Your task to perform on an android device: open app "The Home Depot" (install if not already installed) Image 0: 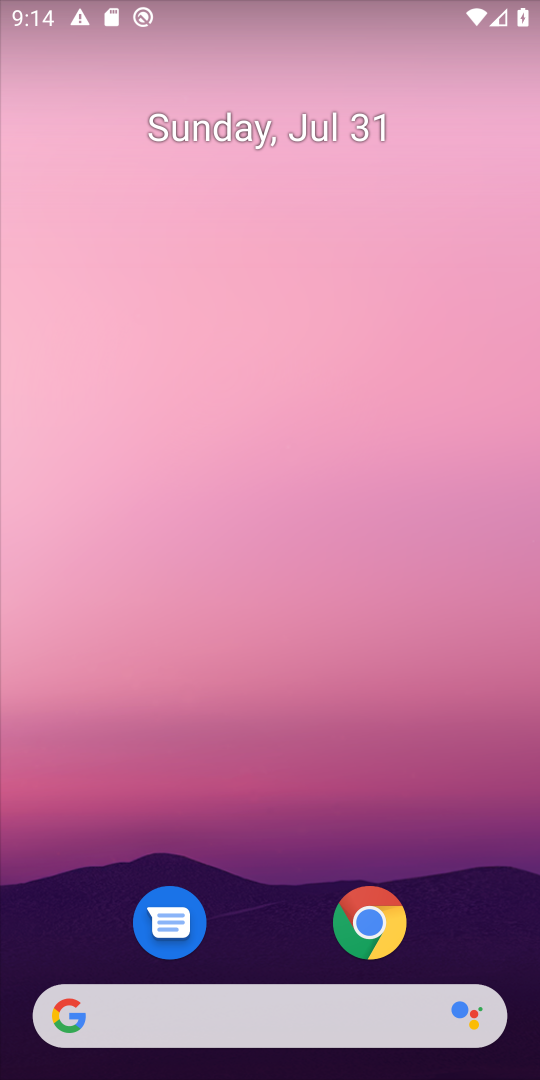
Step 0: drag from (290, 994) to (297, 117)
Your task to perform on an android device: open app "The Home Depot" (install if not already installed) Image 1: 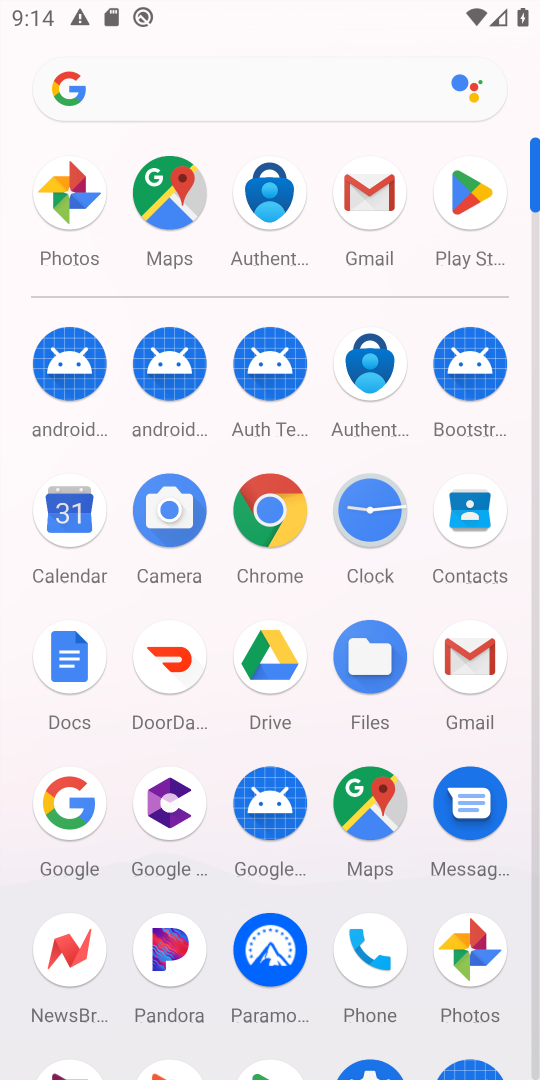
Step 1: click (467, 185)
Your task to perform on an android device: open app "The Home Depot" (install if not already installed) Image 2: 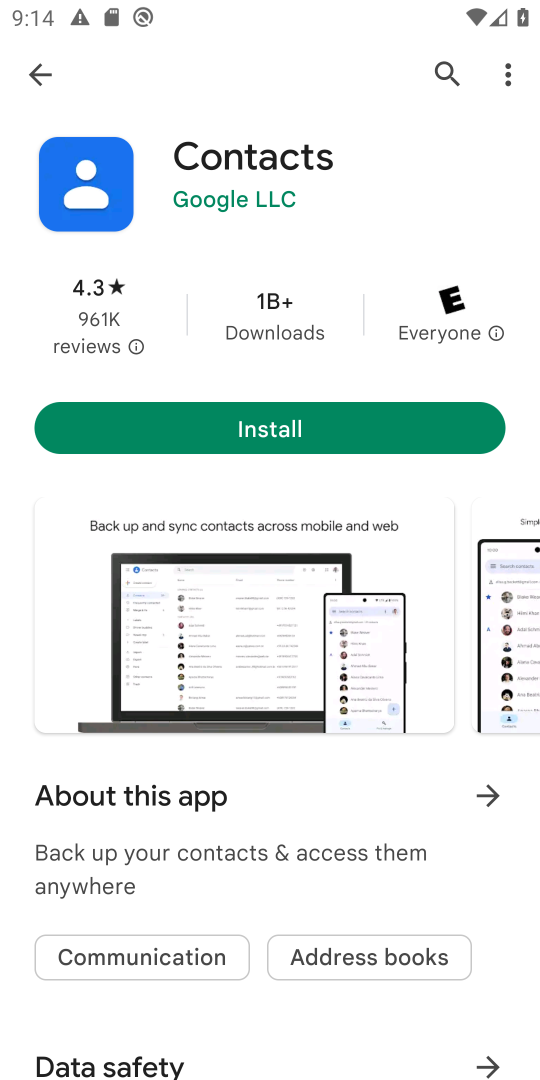
Step 2: click (443, 66)
Your task to perform on an android device: open app "The Home Depot" (install if not already installed) Image 3: 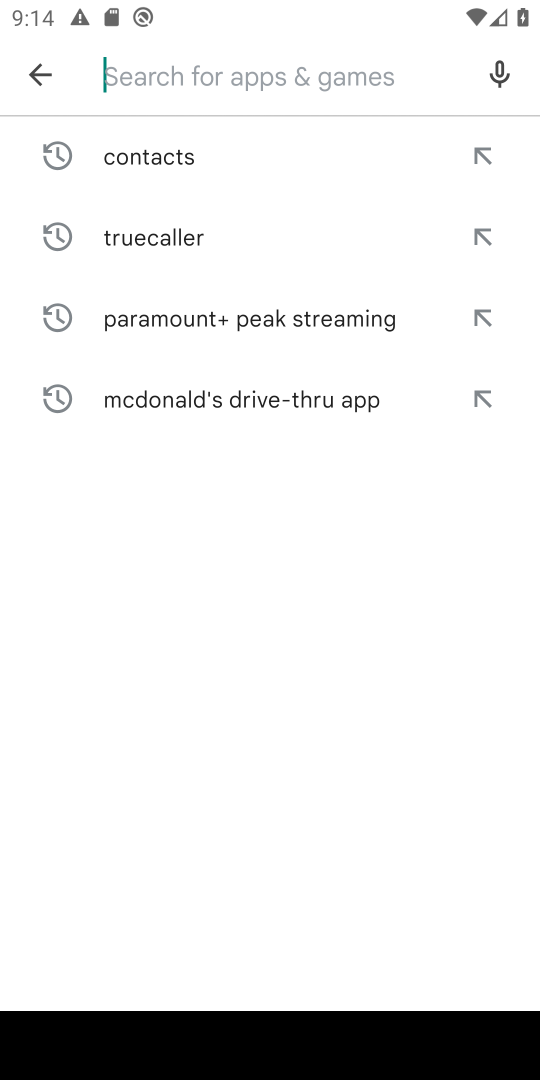
Step 3: type "The Home Depot"
Your task to perform on an android device: open app "The Home Depot" (install if not already installed) Image 4: 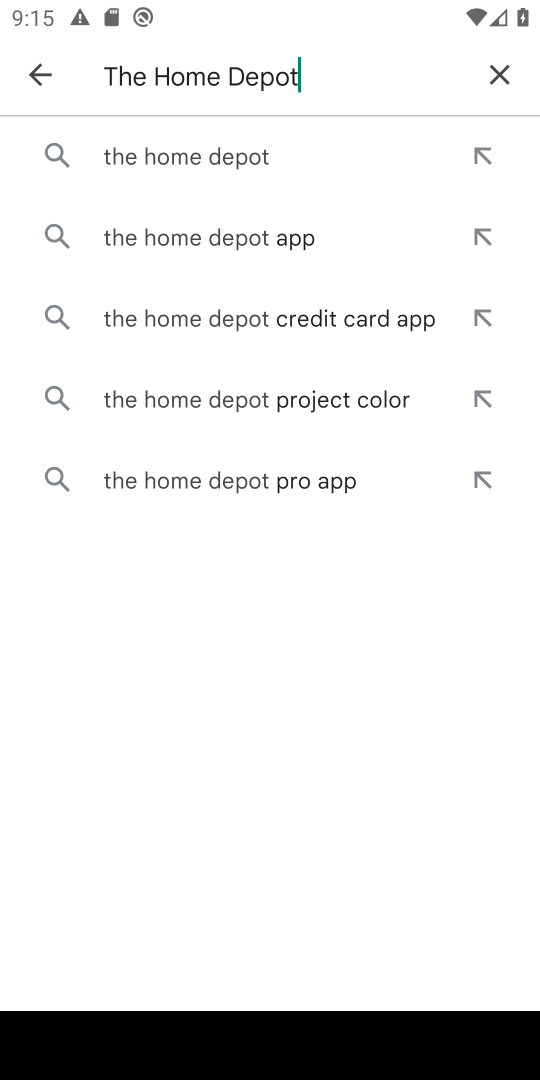
Step 4: click (190, 148)
Your task to perform on an android device: open app "The Home Depot" (install if not already installed) Image 5: 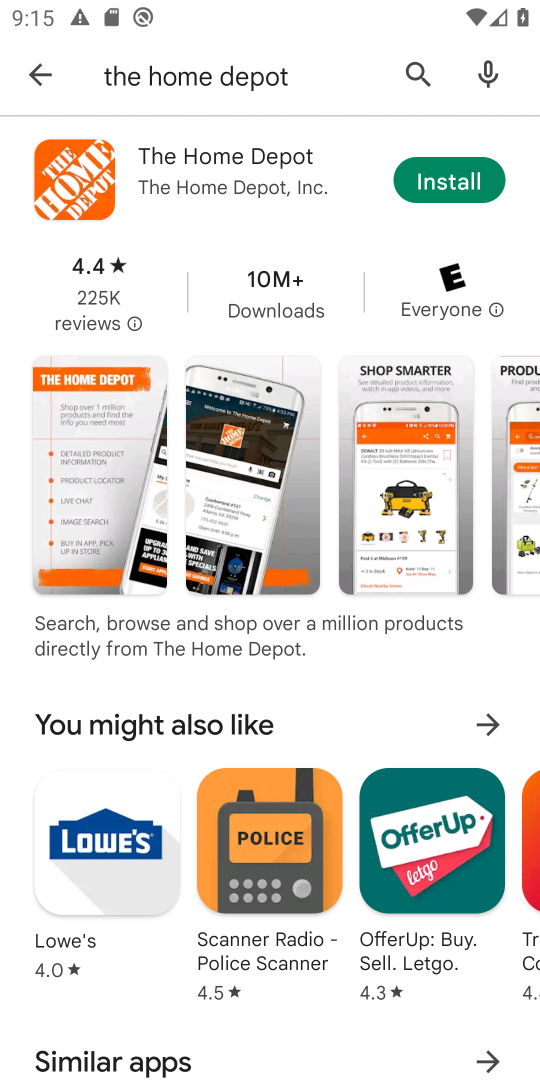
Step 5: click (440, 183)
Your task to perform on an android device: open app "The Home Depot" (install if not already installed) Image 6: 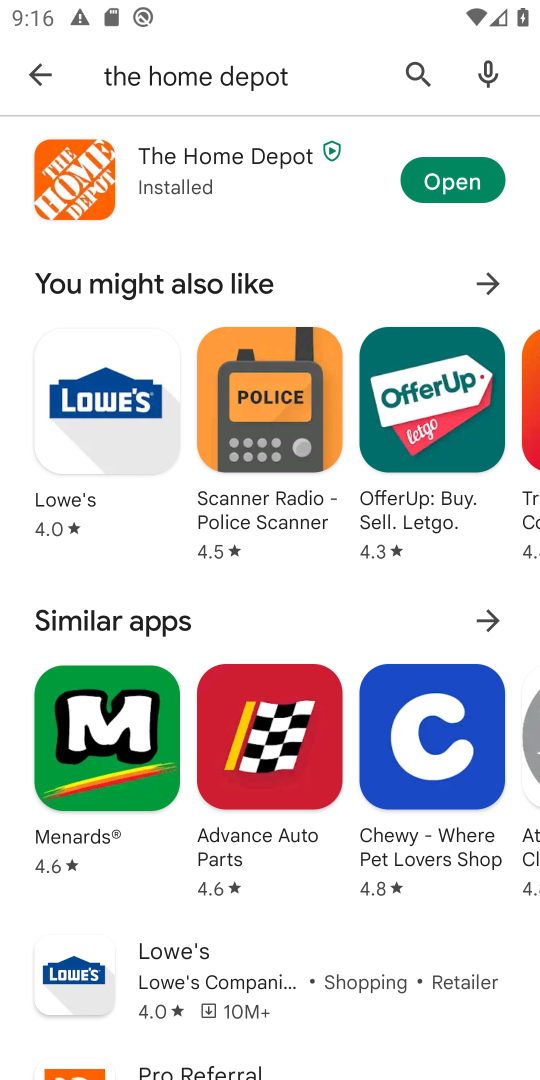
Step 6: task complete